Your task to perform on an android device: read, delete, or share a saved page in the chrome app Image 0: 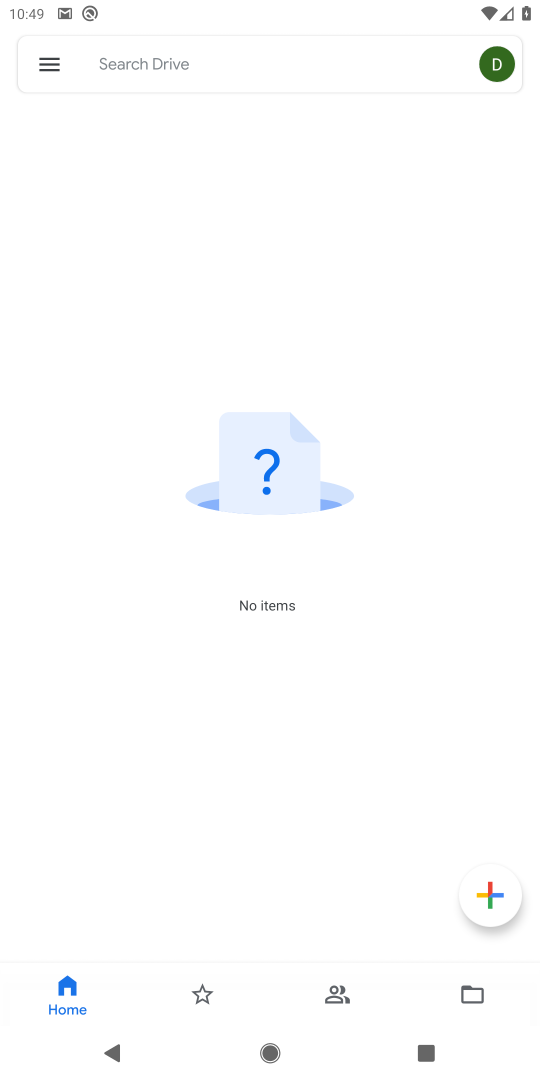
Step 0: press home button
Your task to perform on an android device: read, delete, or share a saved page in the chrome app Image 1: 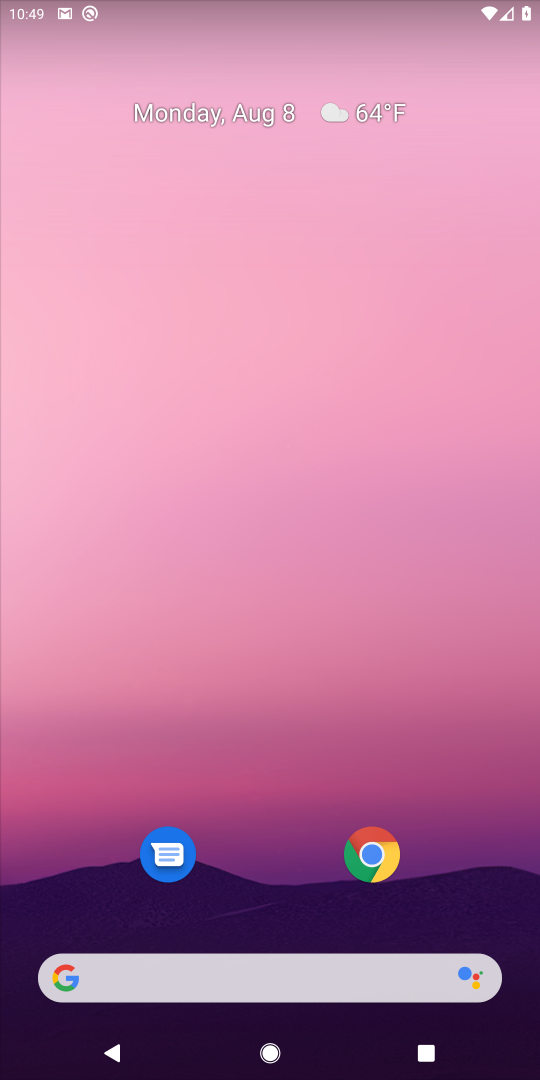
Step 1: click (375, 846)
Your task to perform on an android device: read, delete, or share a saved page in the chrome app Image 2: 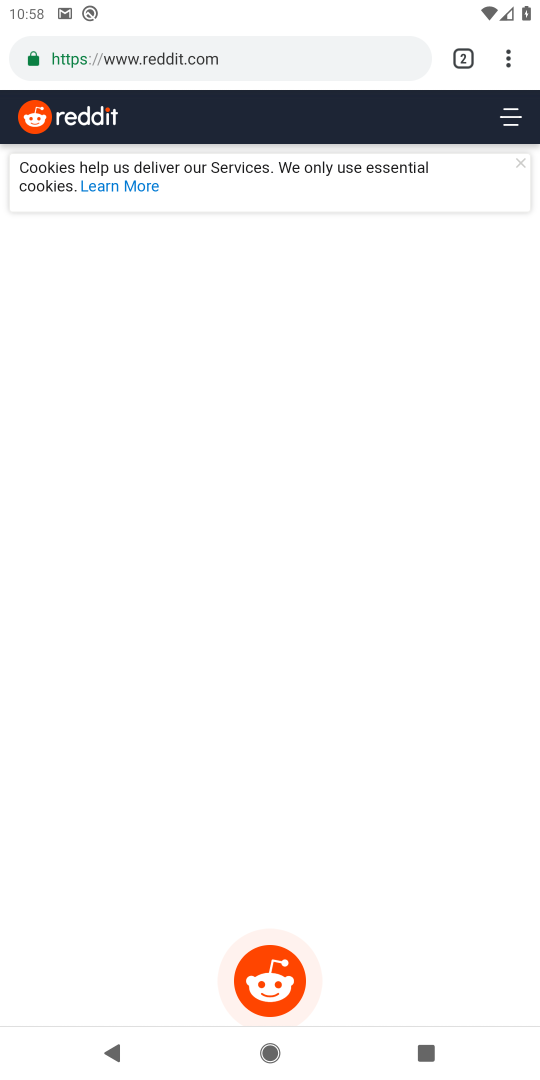
Step 2: click (514, 55)
Your task to perform on an android device: read, delete, or share a saved page in the chrome app Image 3: 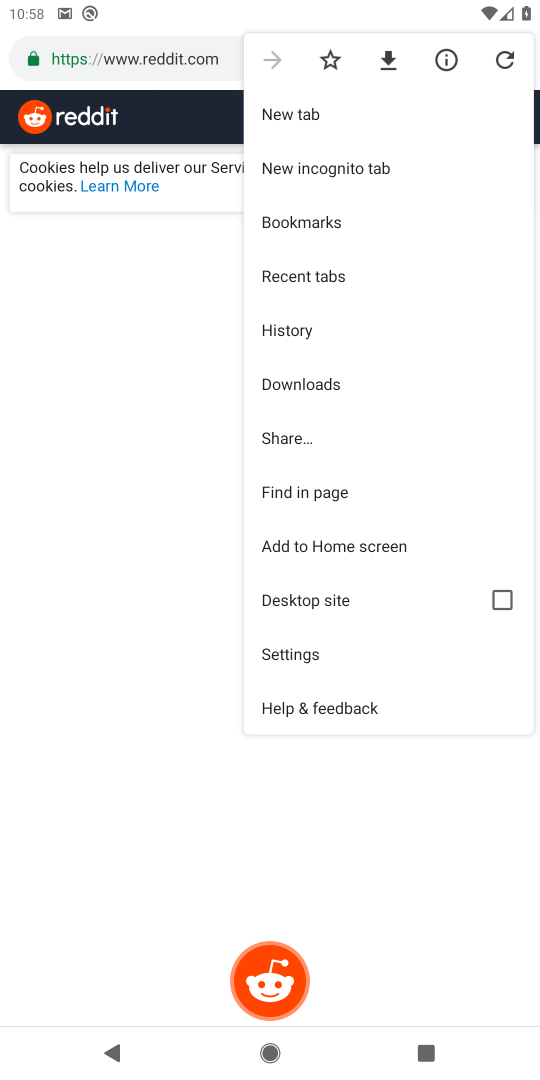
Step 3: click (368, 388)
Your task to perform on an android device: read, delete, or share a saved page in the chrome app Image 4: 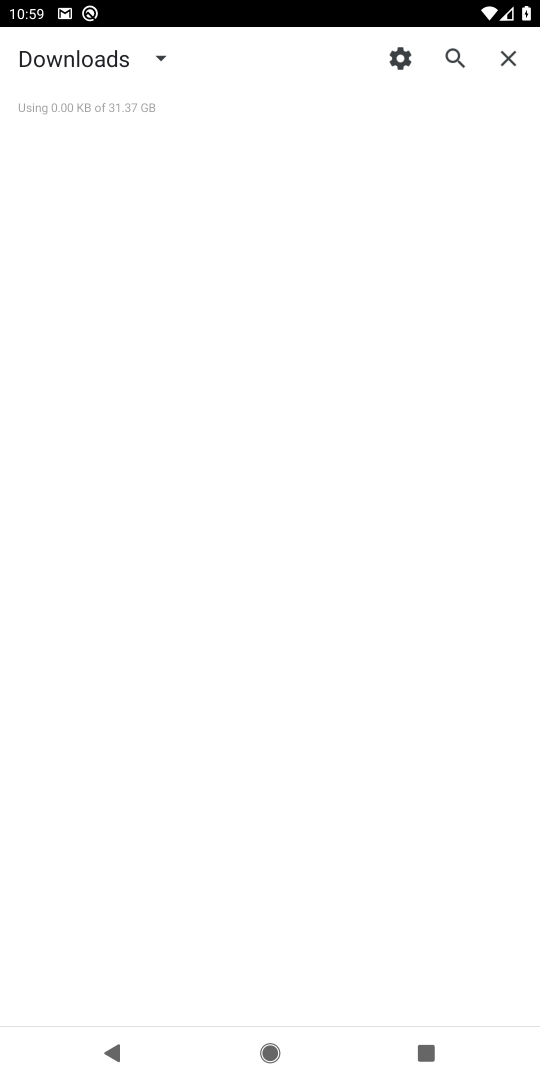
Step 4: task complete